Your task to perform on an android device: change notifications settings Image 0: 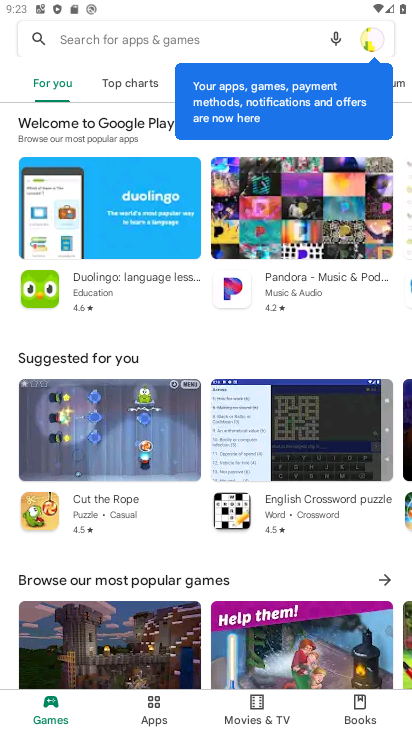
Step 0: press home button
Your task to perform on an android device: change notifications settings Image 1: 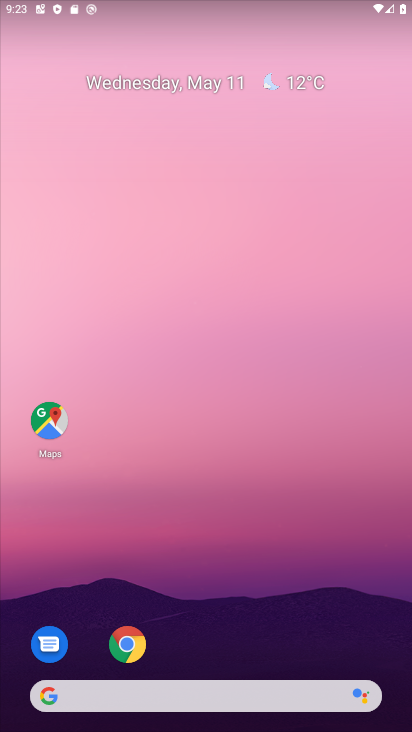
Step 1: drag from (238, 634) to (275, 145)
Your task to perform on an android device: change notifications settings Image 2: 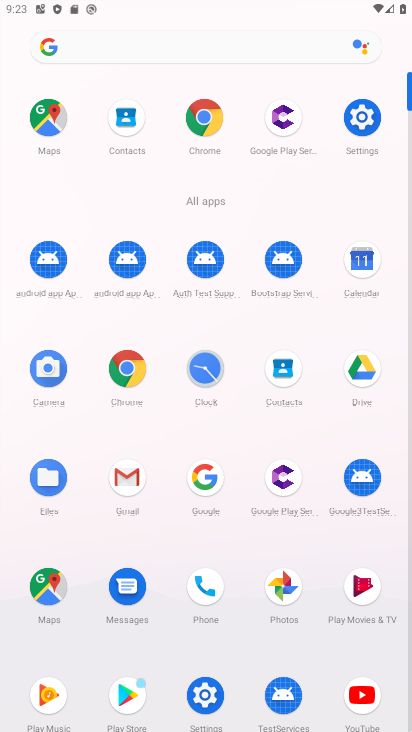
Step 2: click (358, 133)
Your task to perform on an android device: change notifications settings Image 3: 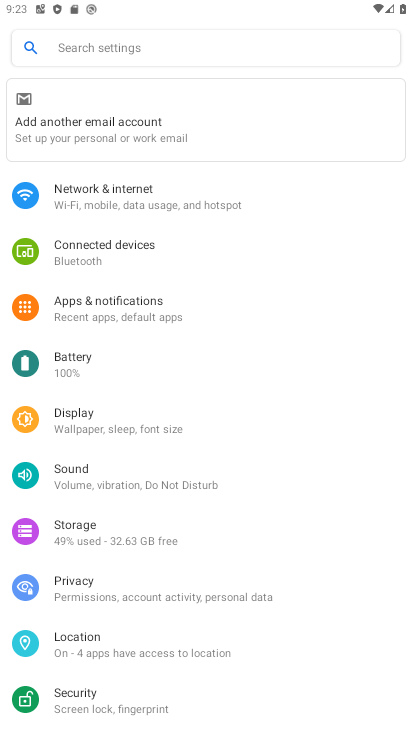
Step 3: click (270, 47)
Your task to perform on an android device: change notifications settings Image 4: 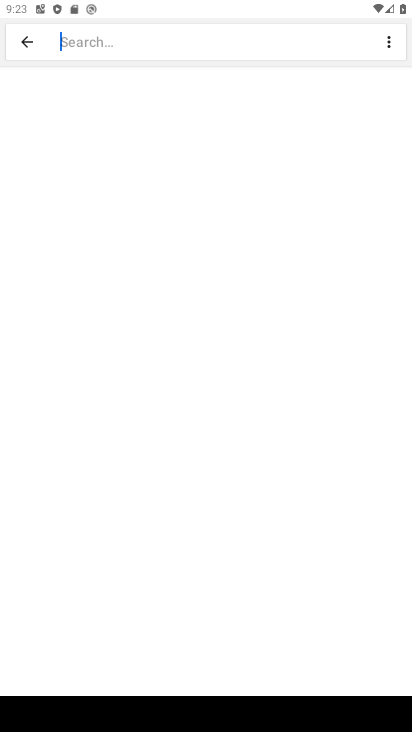
Step 4: click (32, 49)
Your task to perform on an android device: change notifications settings Image 5: 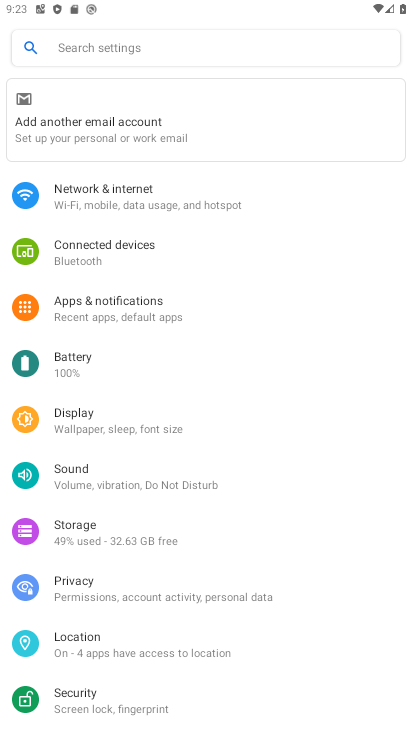
Step 5: click (143, 306)
Your task to perform on an android device: change notifications settings Image 6: 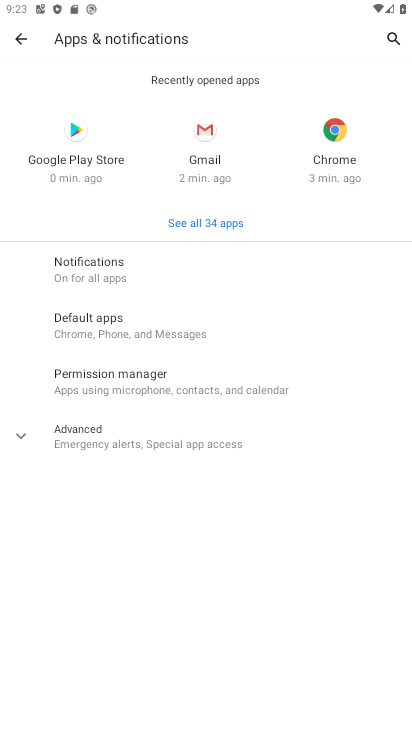
Step 6: click (157, 285)
Your task to perform on an android device: change notifications settings Image 7: 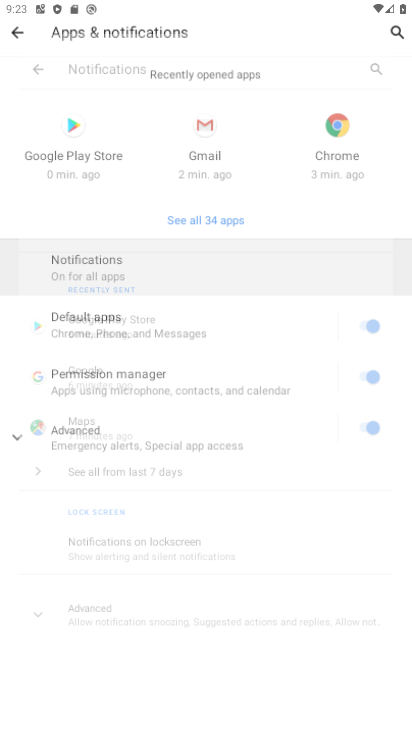
Step 7: task complete